Your task to perform on an android device: Go to battery settings Image 0: 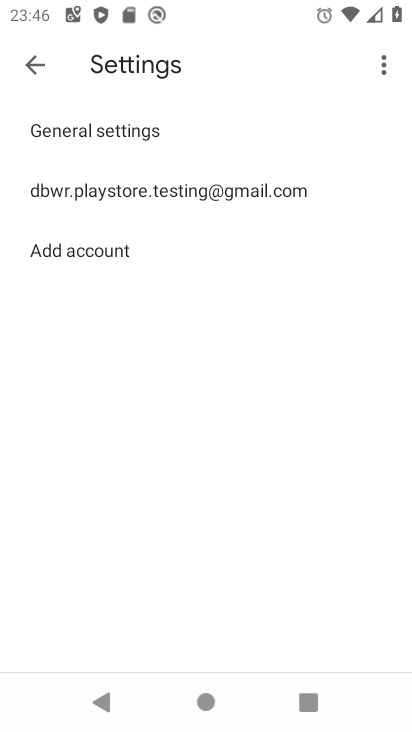
Step 0: press home button
Your task to perform on an android device: Go to battery settings Image 1: 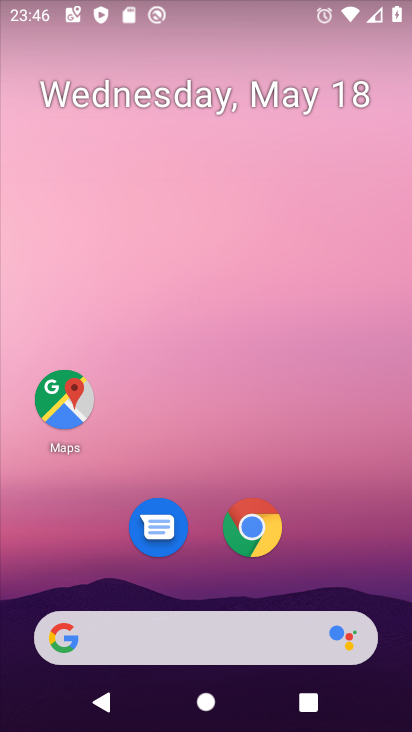
Step 1: drag from (373, 547) to (357, 106)
Your task to perform on an android device: Go to battery settings Image 2: 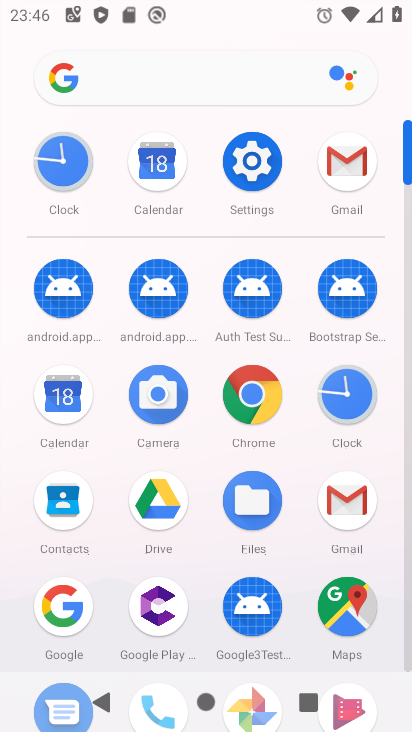
Step 2: click (249, 170)
Your task to perform on an android device: Go to battery settings Image 3: 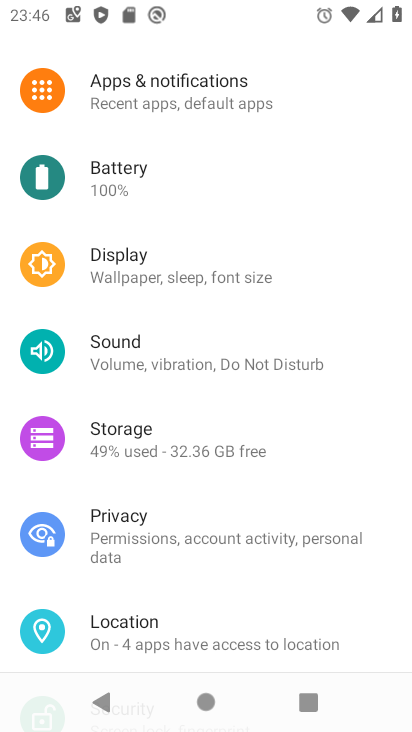
Step 3: click (223, 192)
Your task to perform on an android device: Go to battery settings Image 4: 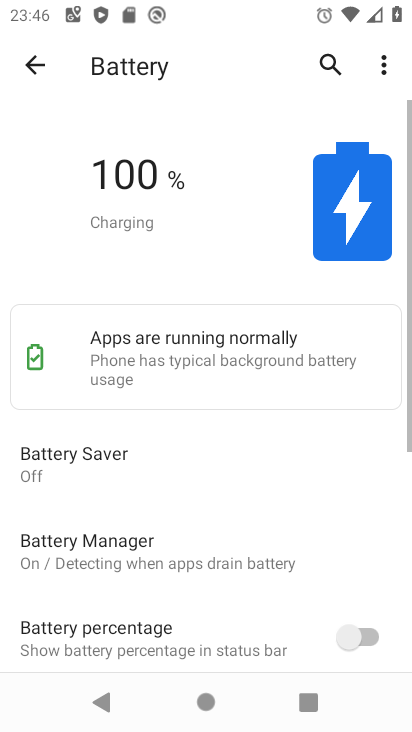
Step 4: task complete